Your task to perform on an android device: Go to Amazon Image 0: 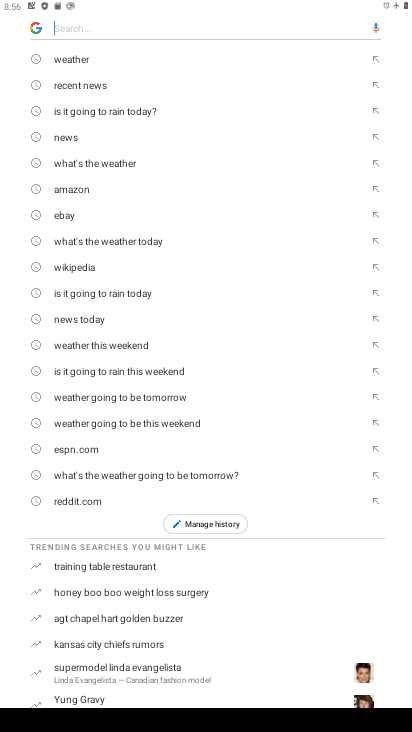
Step 0: press home button
Your task to perform on an android device: Go to Amazon Image 1: 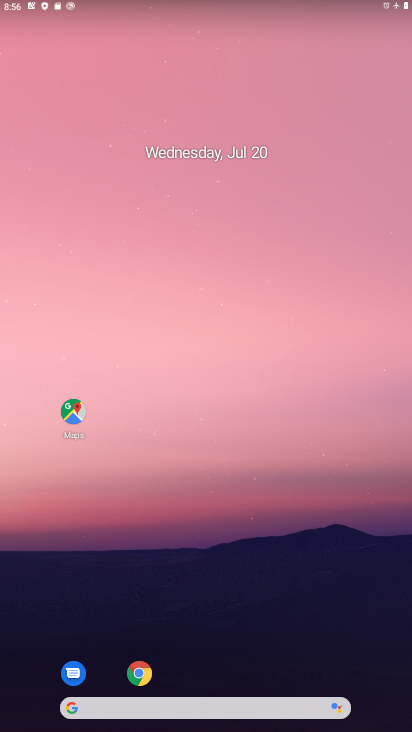
Step 1: drag from (240, 697) to (251, 232)
Your task to perform on an android device: Go to Amazon Image 2: 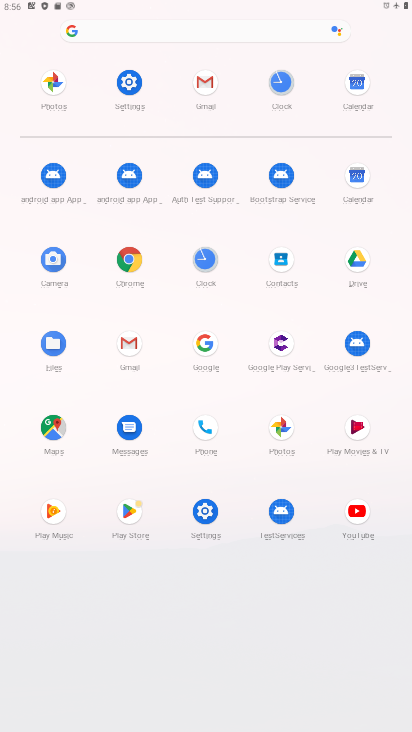
Step 2: click (130, 262)
Your task to perform on an android device: Go to Amazon Image 3: 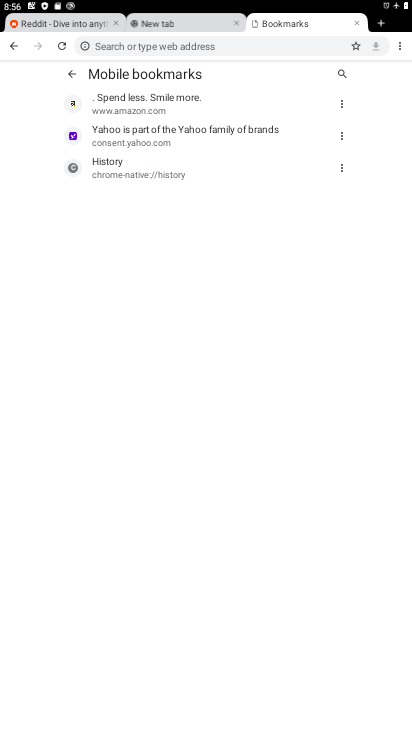
Step 3: click (382, 23)
Your task to perform on an android device: Go to Amazon Image 4: 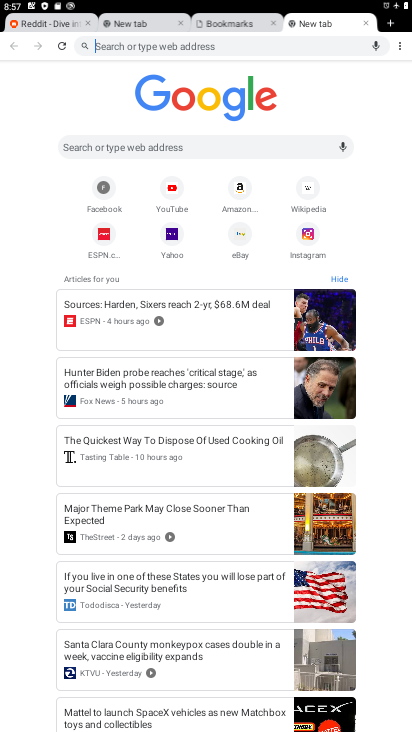
Step 4: click (238, 190)
Your task to perform on an android device: Go to Amazon Image 5: 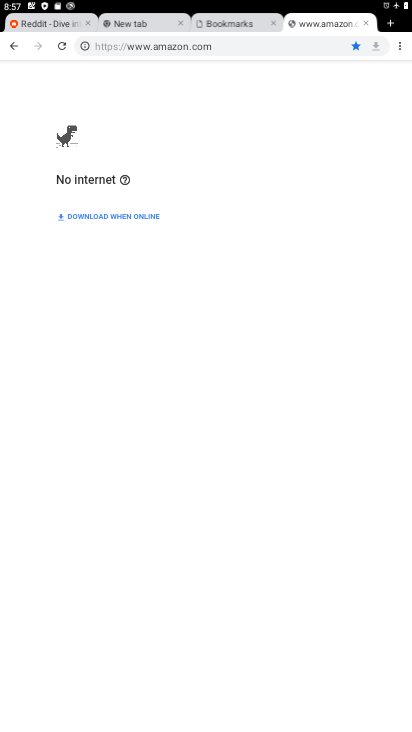
Step 5: task complete